Your task to perform on an android device: open app "eBay: The shopping marketplace" Image 0: 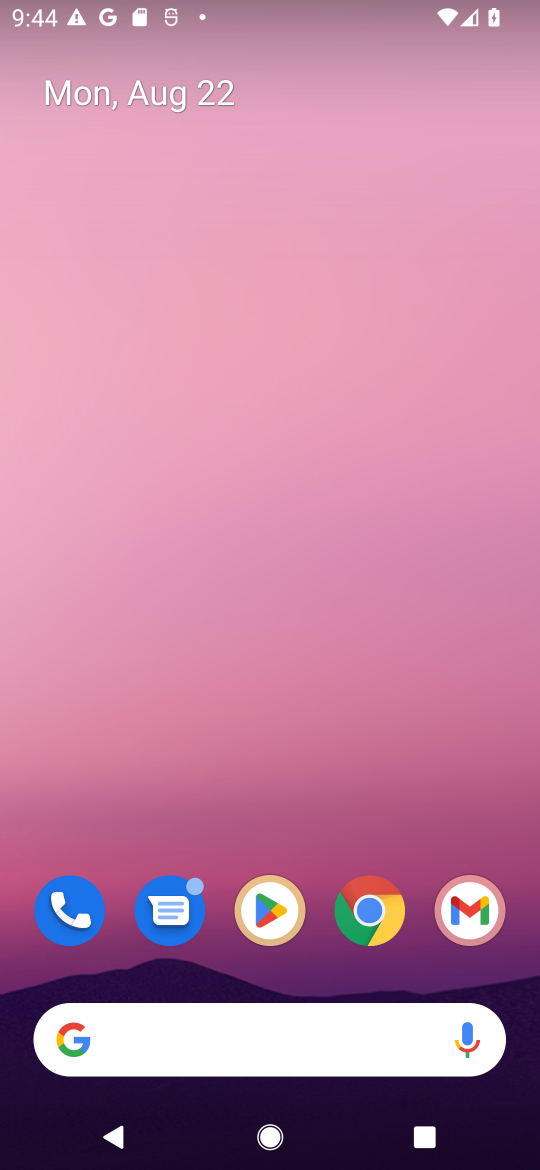
Step 0: click (246, 913)
Your task to perform on an android device: open app "eBay: The shopping marketplace" Image 1: 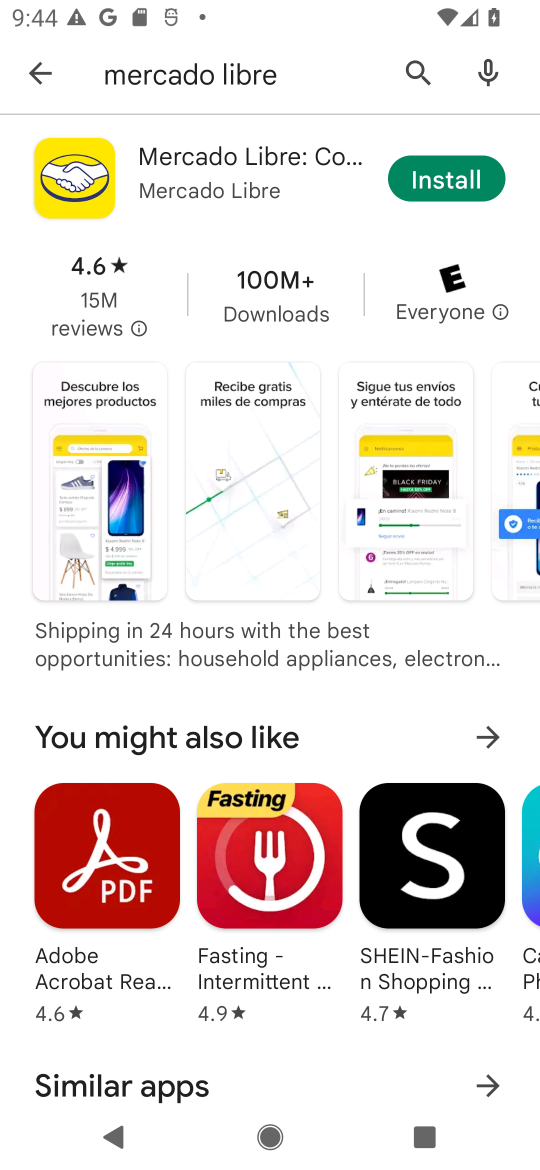
Step 1: click (406, 72)
Your task to perform on an android device: open app "eBay: The shopping marketplace" Image 2: 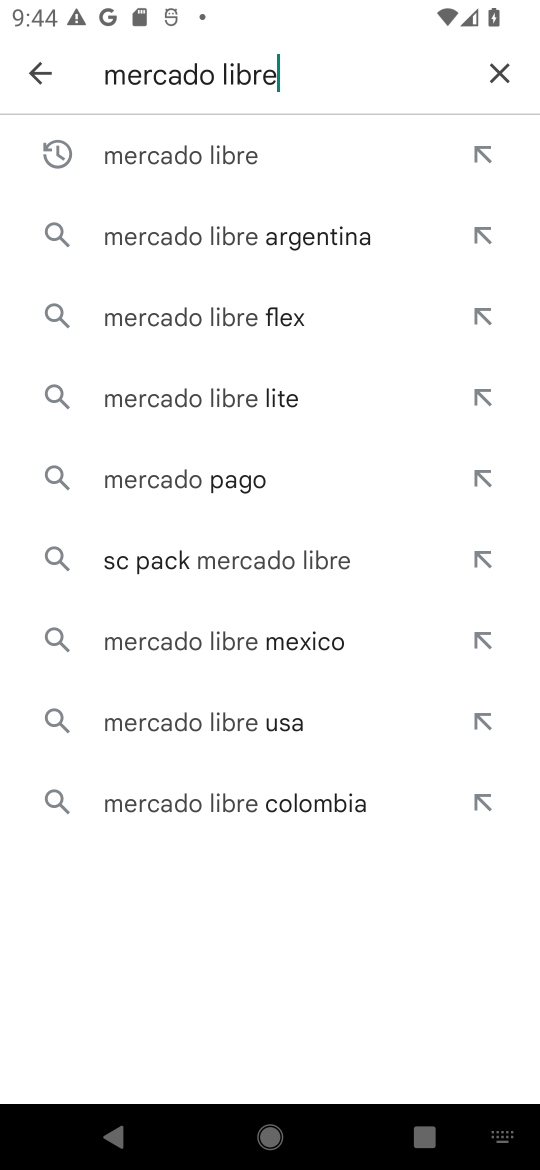
Step 2: click (522, 61)
Your task to perform on an android device: open app "eBay: The shopping marketplace" Image 3: 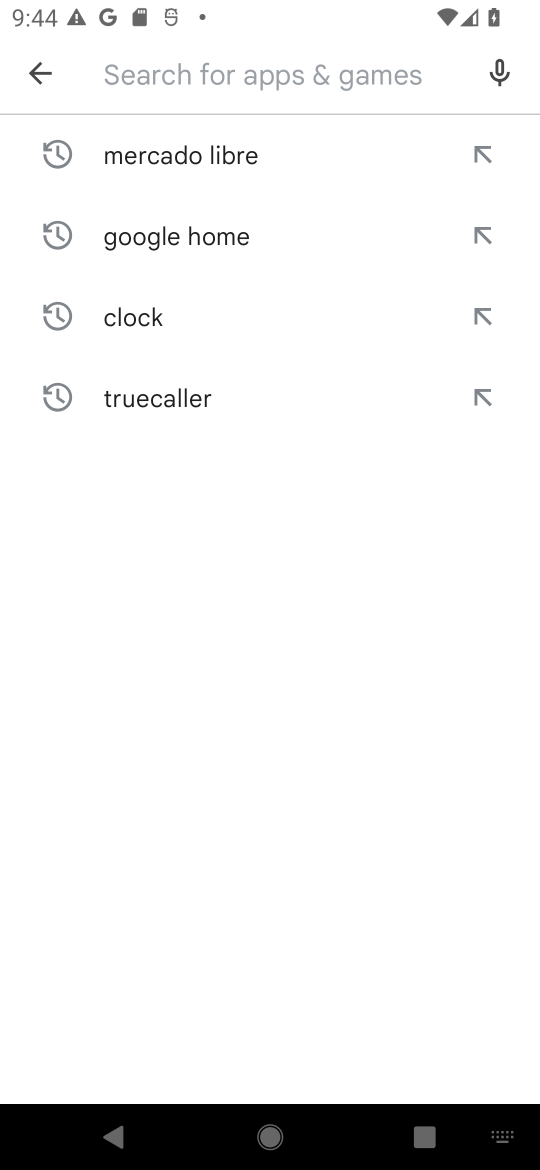
Step 3: type "eBay: The shopping marketplace"
Your task to perform on an android device: open app "eBay: The shopping marketplace" Image 4: 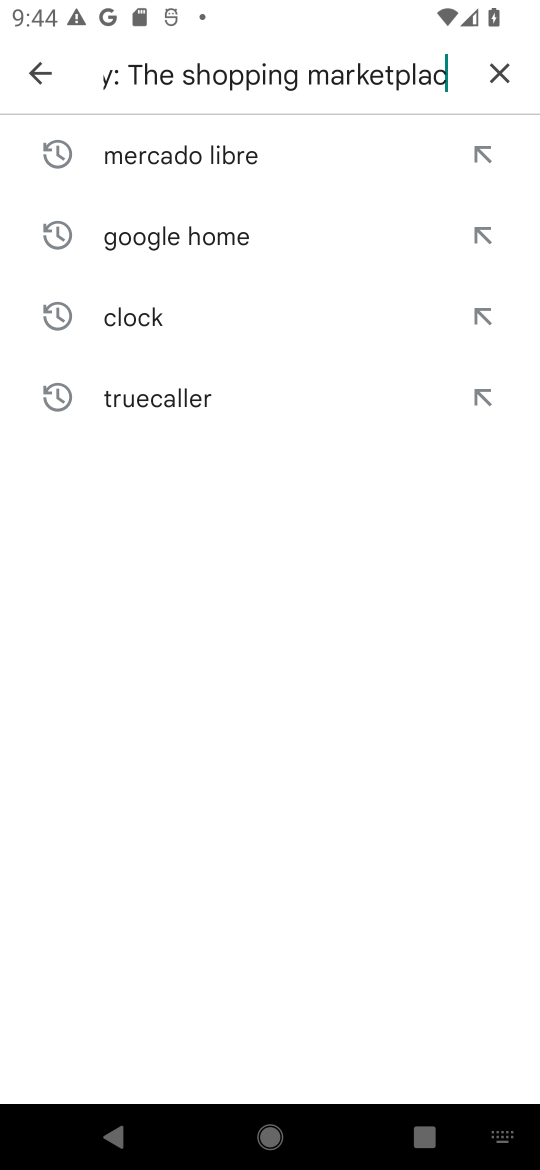
Step 4: type ""
Your task to perform on an android device: open app "eBay: The shopping marketplace" Image 5: 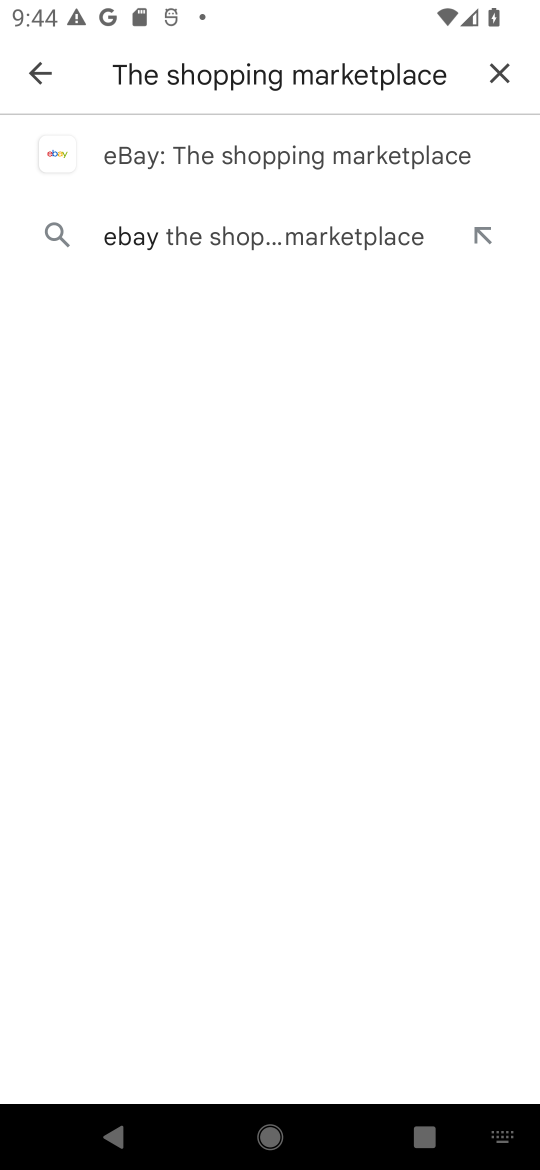
Step 5: click (332, 153)
Your task to perform on an android device: open app "eBay: The shopping marketplace" Image 6: 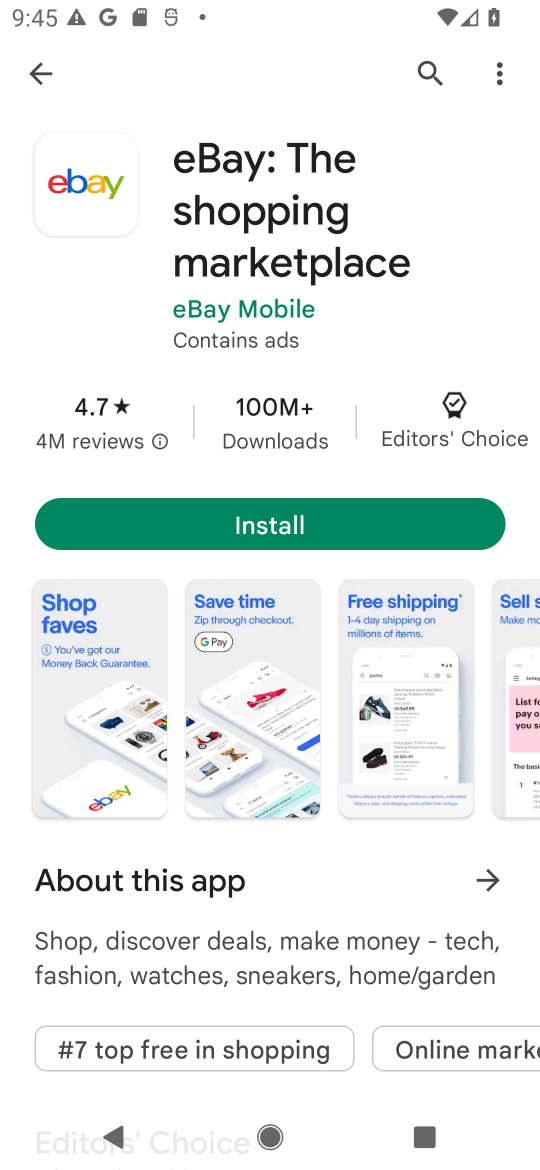
Step 6: task complete